Your task to perform on an android device: What's the weather like in Los Angeles? Image 0: 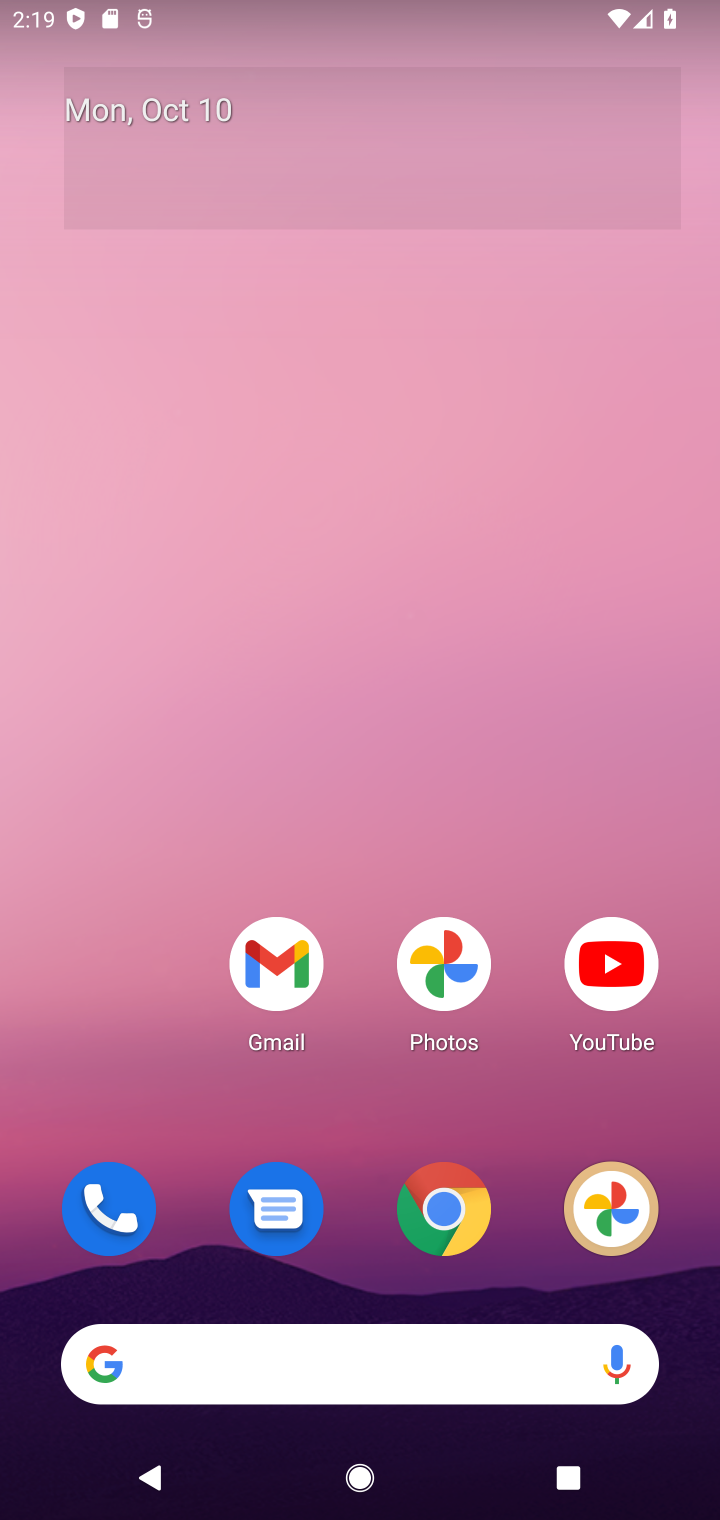
Step 0: click (446, 1233)
Your task to perform on an android device: What's the weather like in Los Angeles? Image 1: 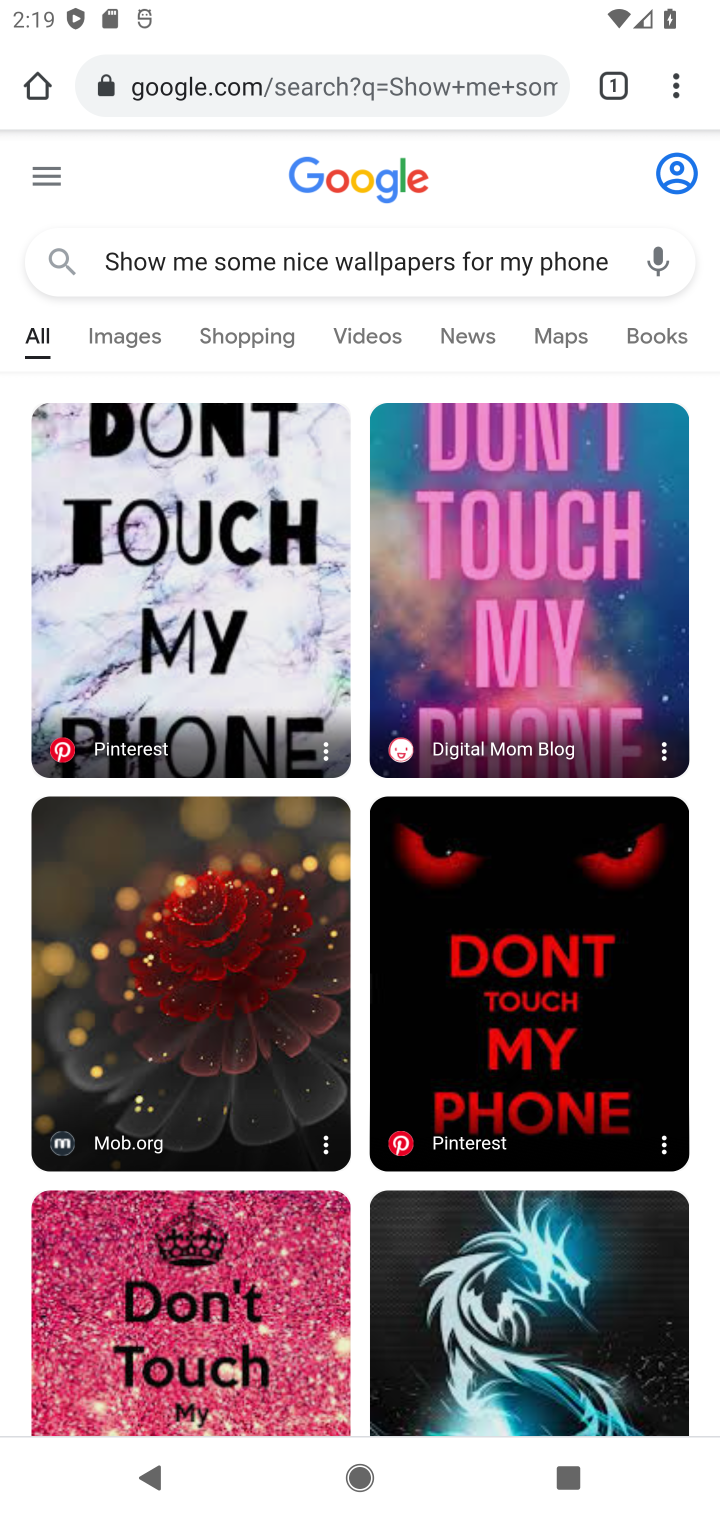
Step 1: click (415, 253)
Your task to perform on an android device: What's the weather like in Los Angeles? Image 2: 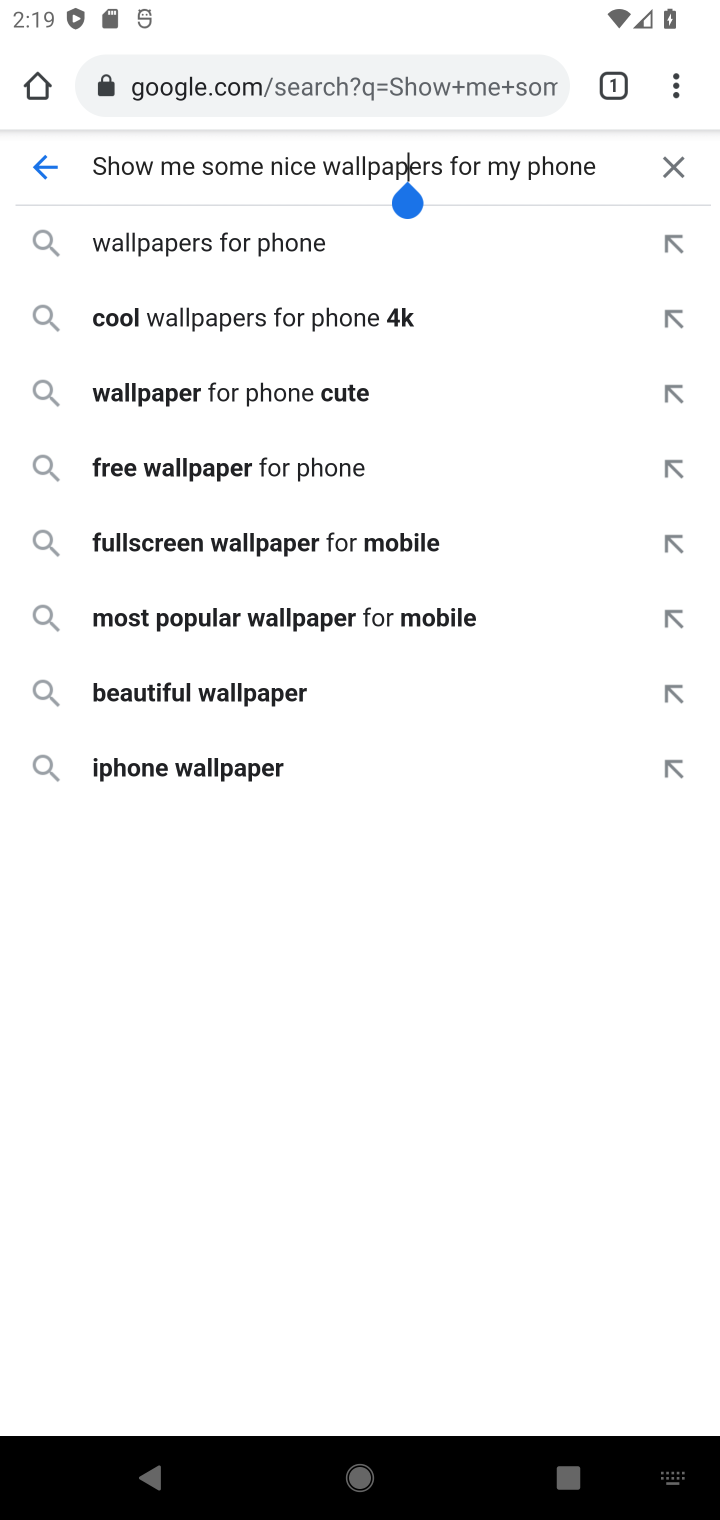
Step 2: click (679, 164)
Your task to perform on an android device: What's the weather like in Los Angeles? Image 3: 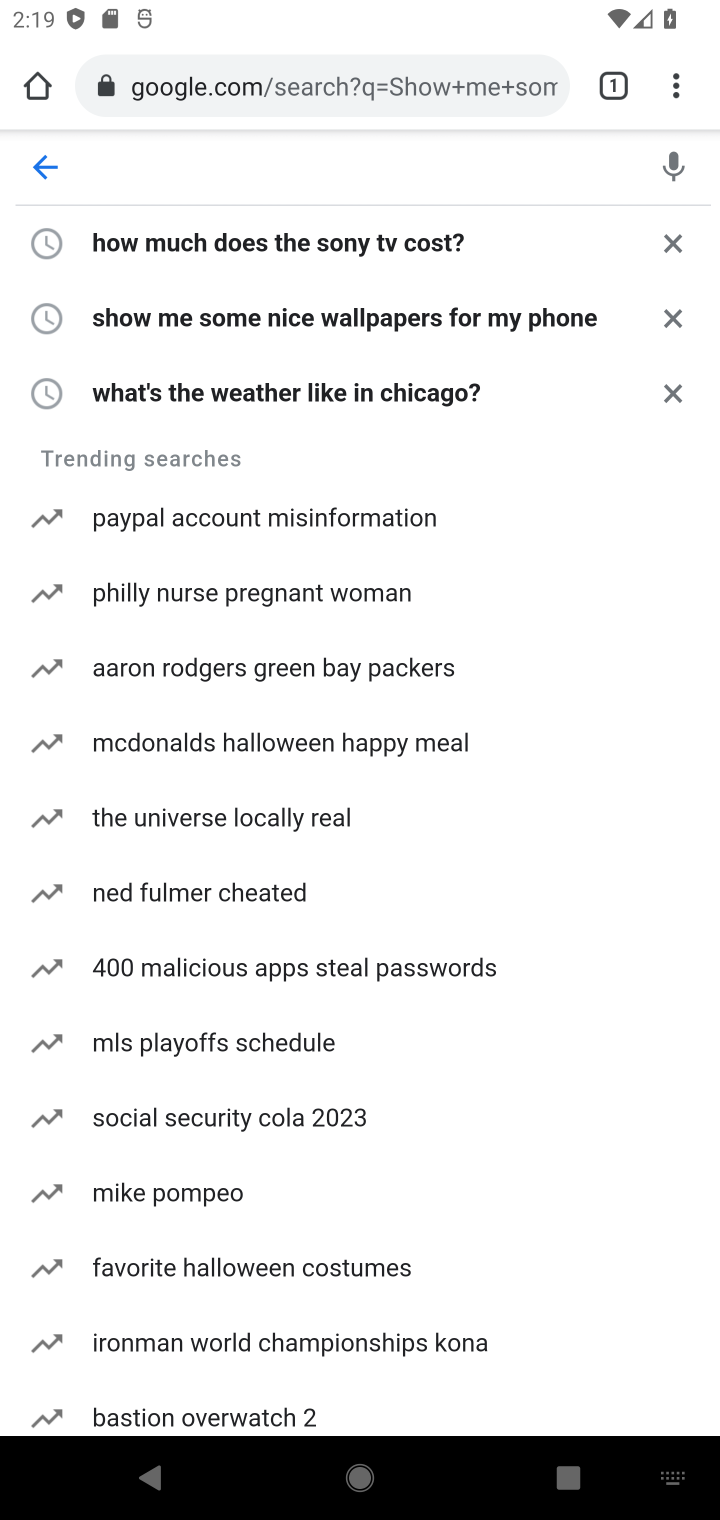
Step 3: type "What's the weather like in Los Angeles?"
Your task to perform on an android device: What's the weather like in Los Angeles? Image 4: 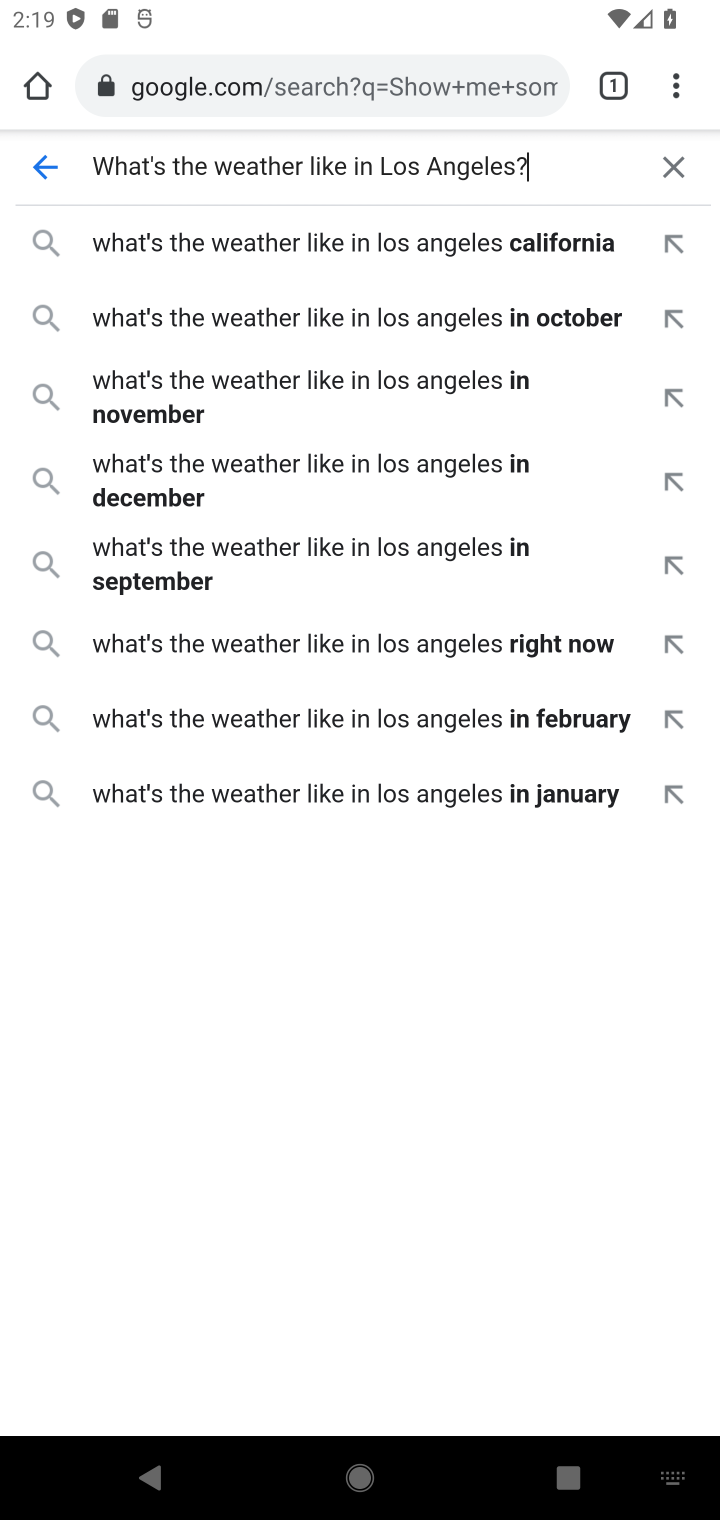
Step 4: press enter
Your task to perform on an android device: What's the weather like in Los Angeles? Image 5: 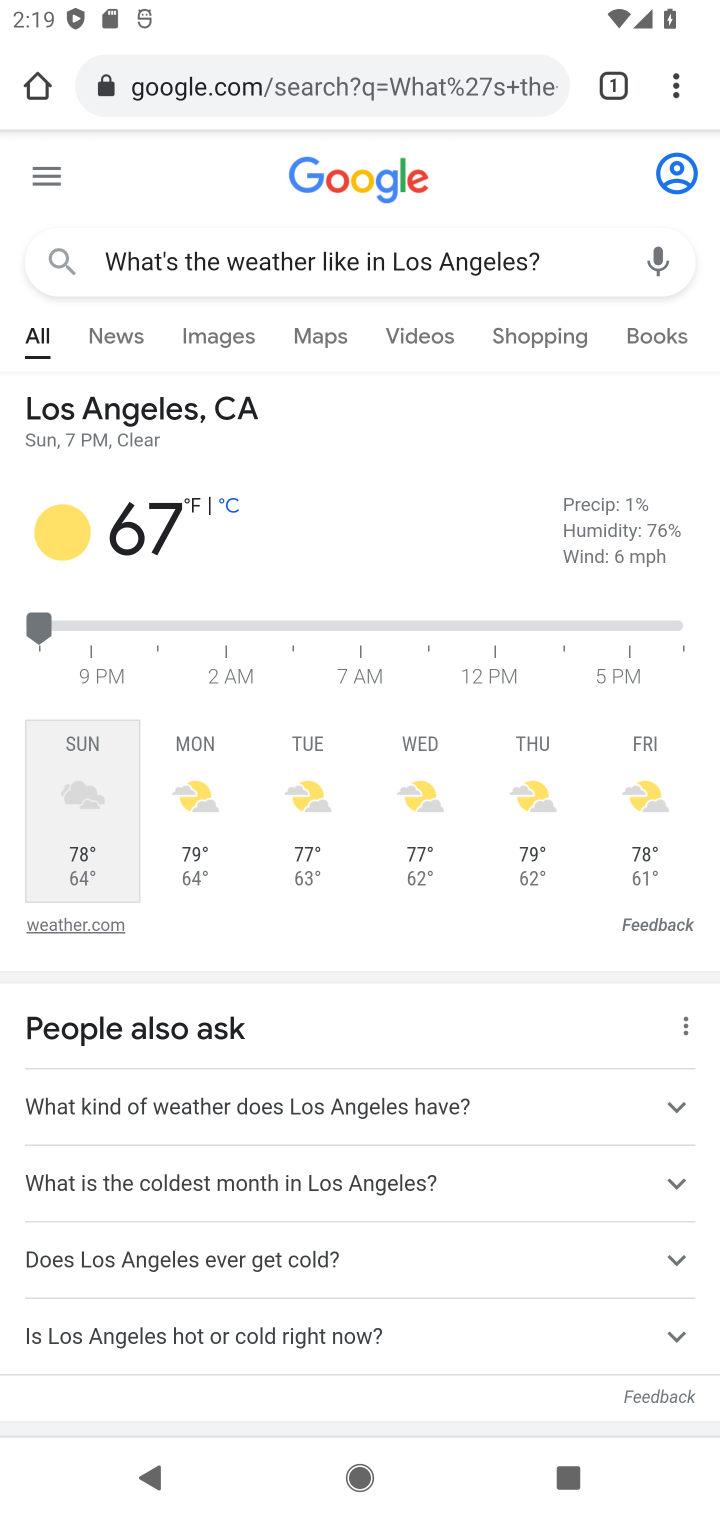
Step 5: task complete